Your task to perform on an android device: delete the emails in spam in the gmail app Image 0: 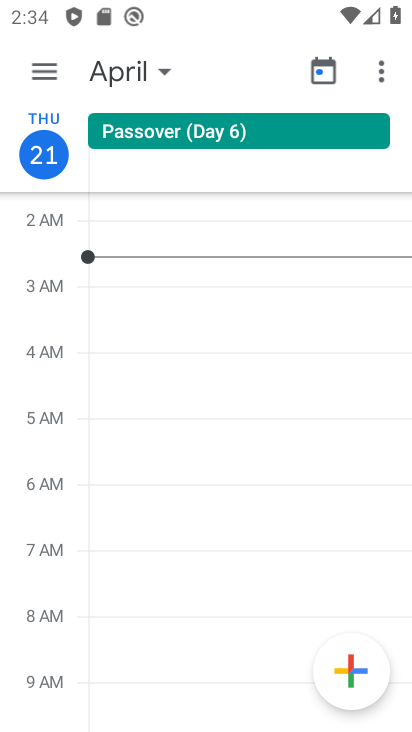
Step 0: press home button
Your task to perform on an android device: delete the emails in spam in the gmail app Image 1: 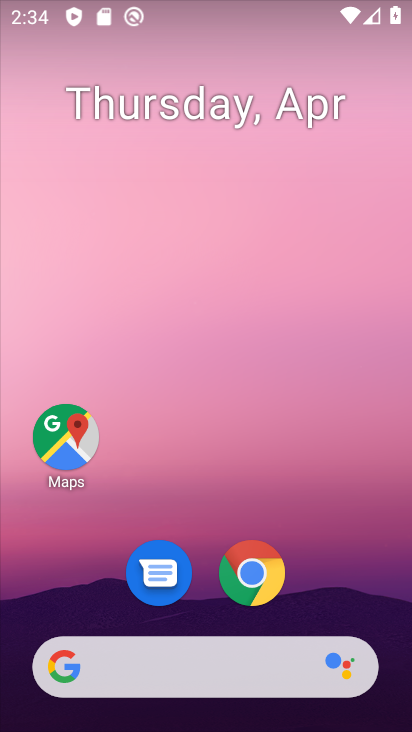
Step 1: drag from (351, 593) to (275, 75)
Your task to perform on an android device: delete the emails in spam in the gmail app Image 2: 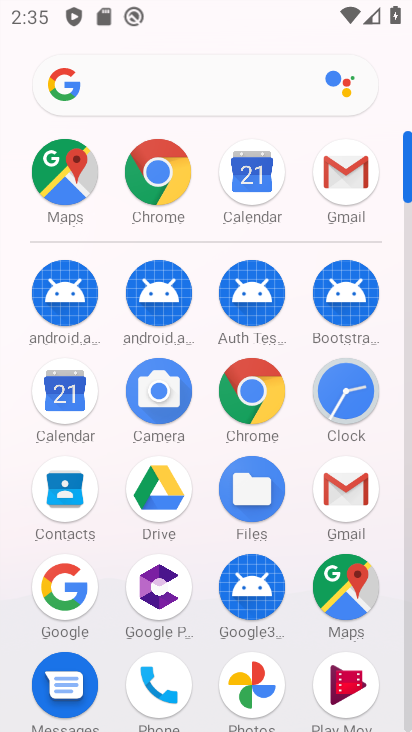
Step 2: click (347, 500)
Your task to perform on an android device: delete the emails in spam in the gmail app Image 3: 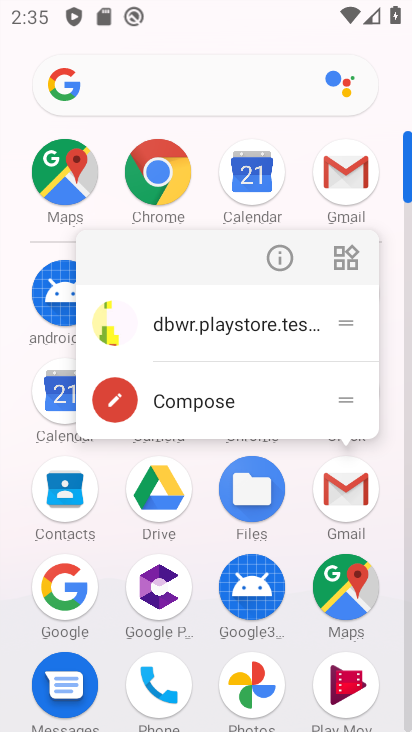
Step 3: click (350, 499)
Your task to perform on an android device: delete the emails in spam in the gmail app Image 4: 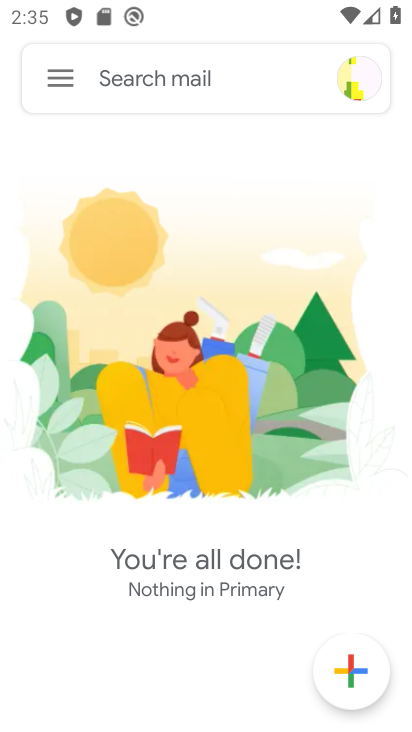
Step 4: task complete